Your task to perform on an android device: change notifications settings Image 0: 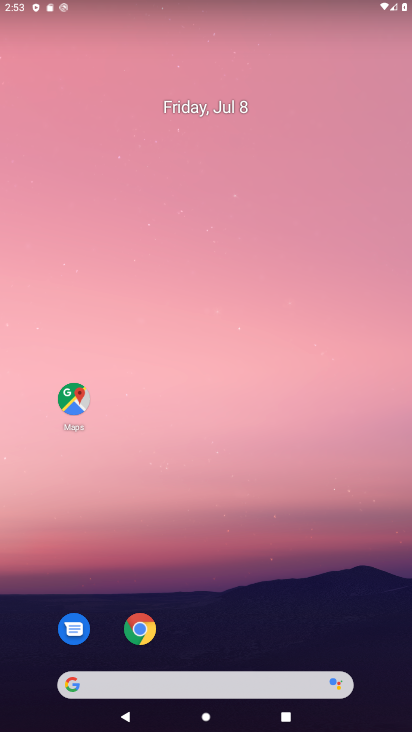
Step 0: drag from (221, 646) to (396, 14)
Your task to perform on an android device: change notifications settings Image 1: 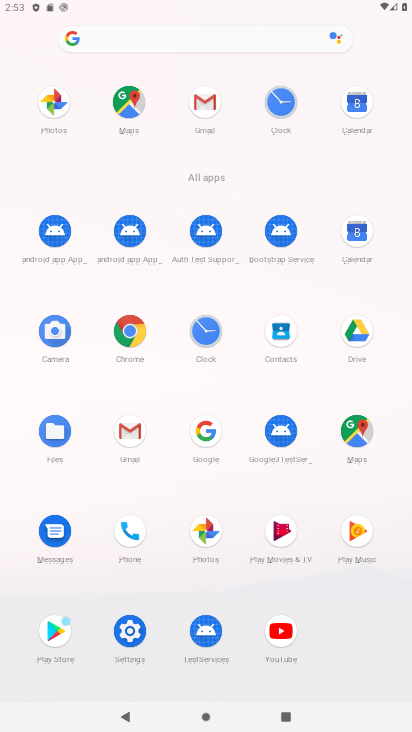
Step 1: click (125, 640)
Your task to perform on an android device: change notifications settings Image 2: 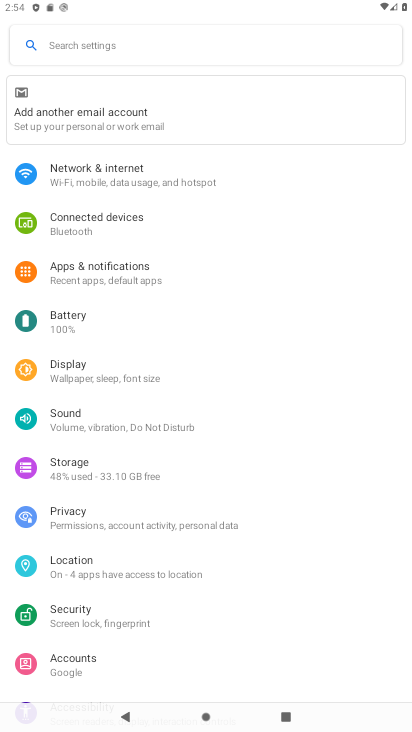
Step 2: click (160, 273)
Your task to perform on an android device: change notifications settings Image 3: 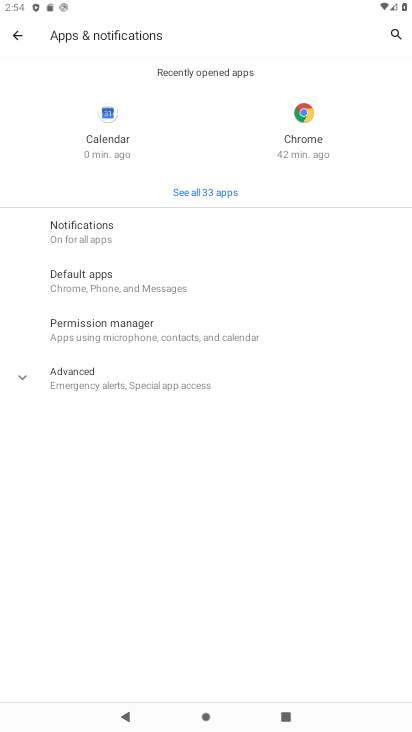
Step 3: click (126, 246)
Your task to perform on an android device: change notifications settings Image 4: 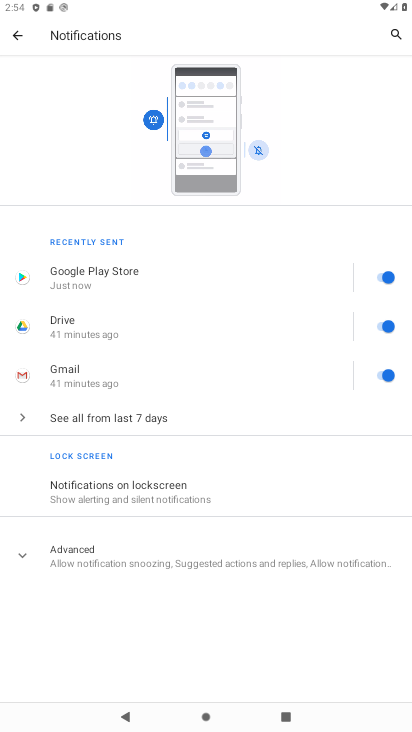
Step 4: click (145, 543)
Your task to perform on an android device: change notifications settings Image 5: 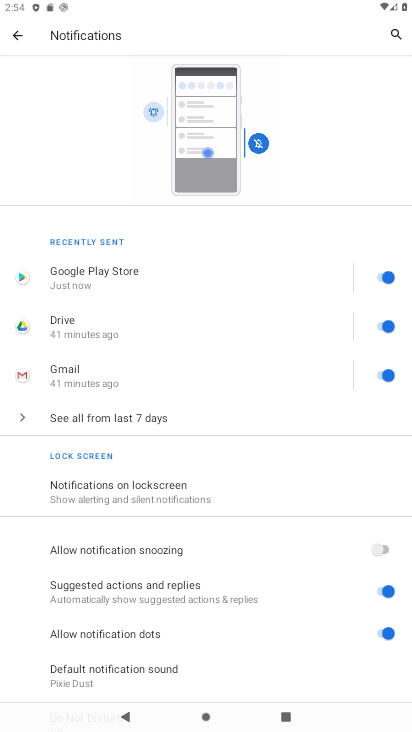
Step 5: click (387, 553)
Your task to perform on an android device: change notifications settings Image 6: 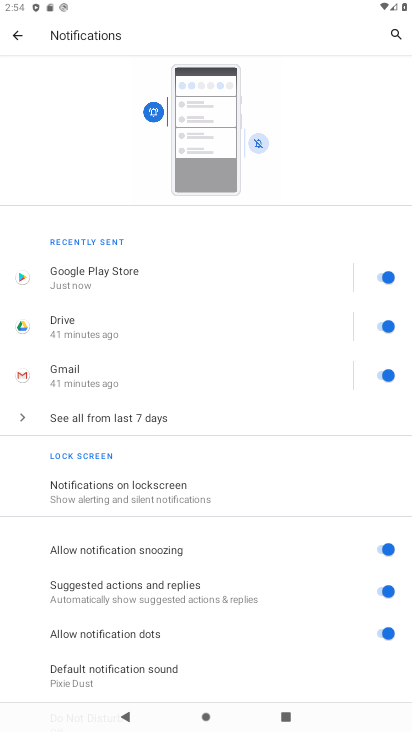
Step 6: click (379, 594)
Your task to perform on an android device: change notifications settings Image 7: 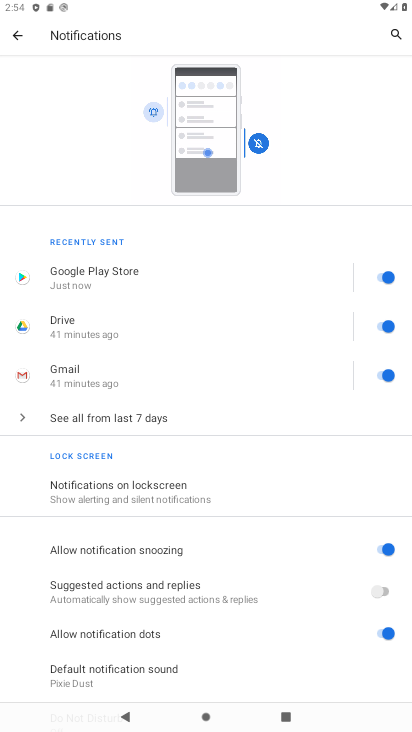
Step 7: click (394, 550)
Your task to perform on an android device: change notifications settings Image 8: 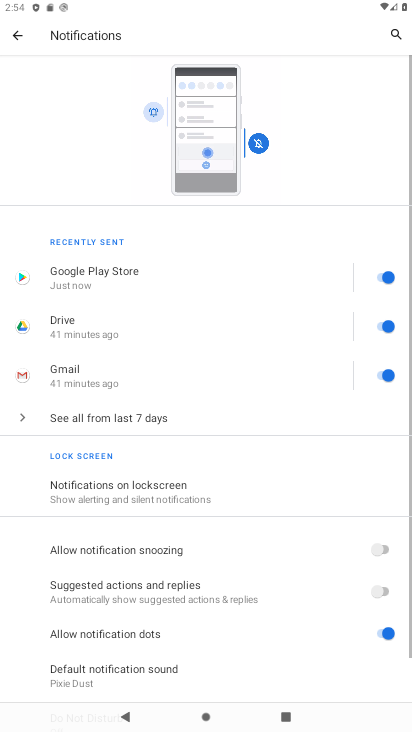
Step 8: click (389, 631)
Your task to perform on an android device: change notifications settings Image 9: 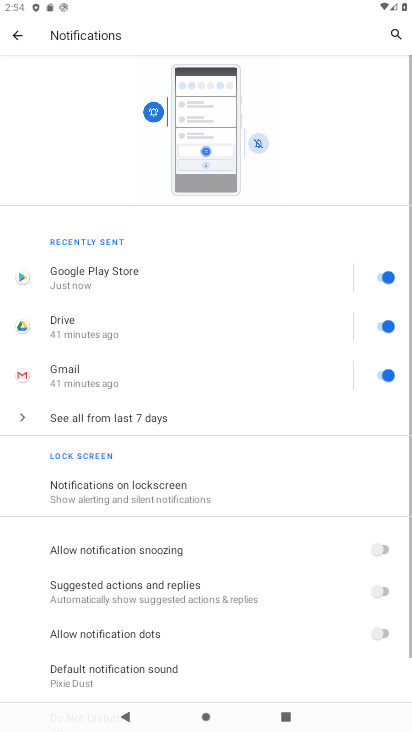
Step 9: click (374, 384)
Your task to perform on an android device: change notifications settings Image 10: 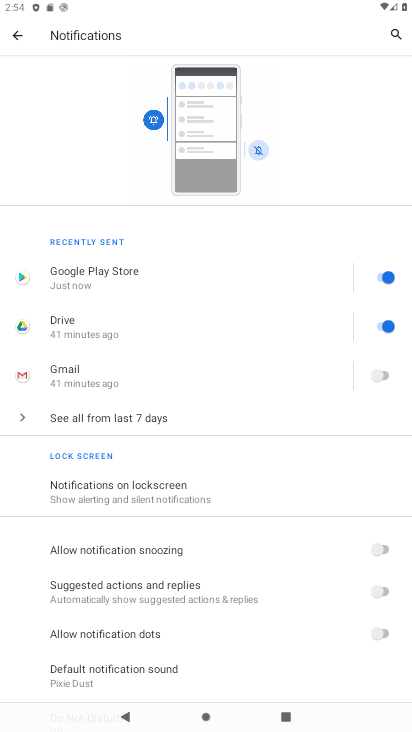
Step 10: click (171, 677)
Your task to perform on an android device: change notifications settings Image 11: 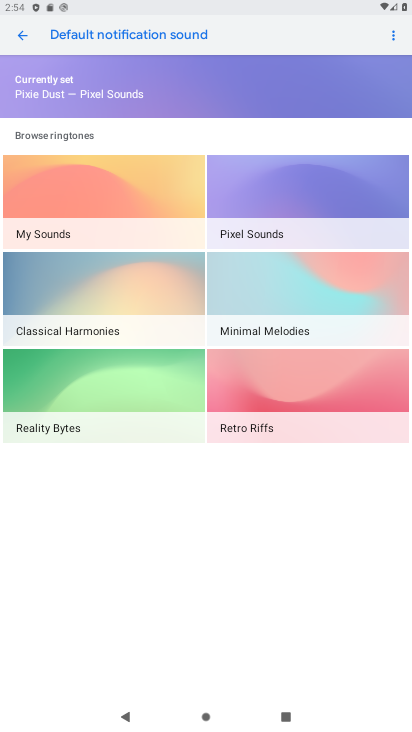
Step 11: click (290, 294)
Your task to perform on an android device: change notifications settings Image 12: 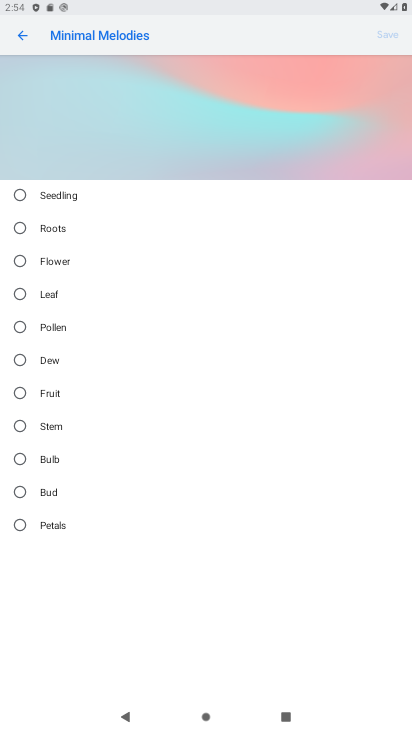
Step 12: click (41, 403)
Your task to perform on an android device: change notifications settings Image 13: 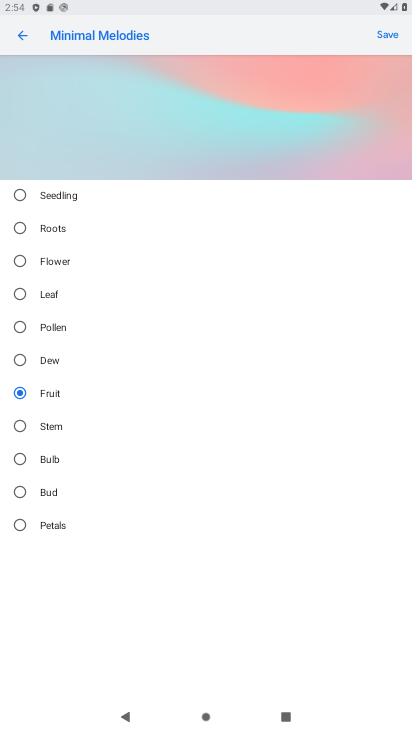
Step 13: click (394, 31)
Your task to perform on an android device: change notifications settings Image 14: 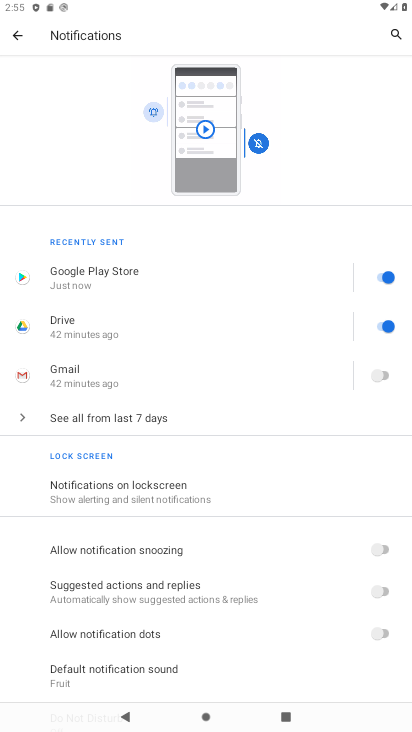
Step 14: task complete